Your task to perform on an android device: Is it going to rain today? Image 0: 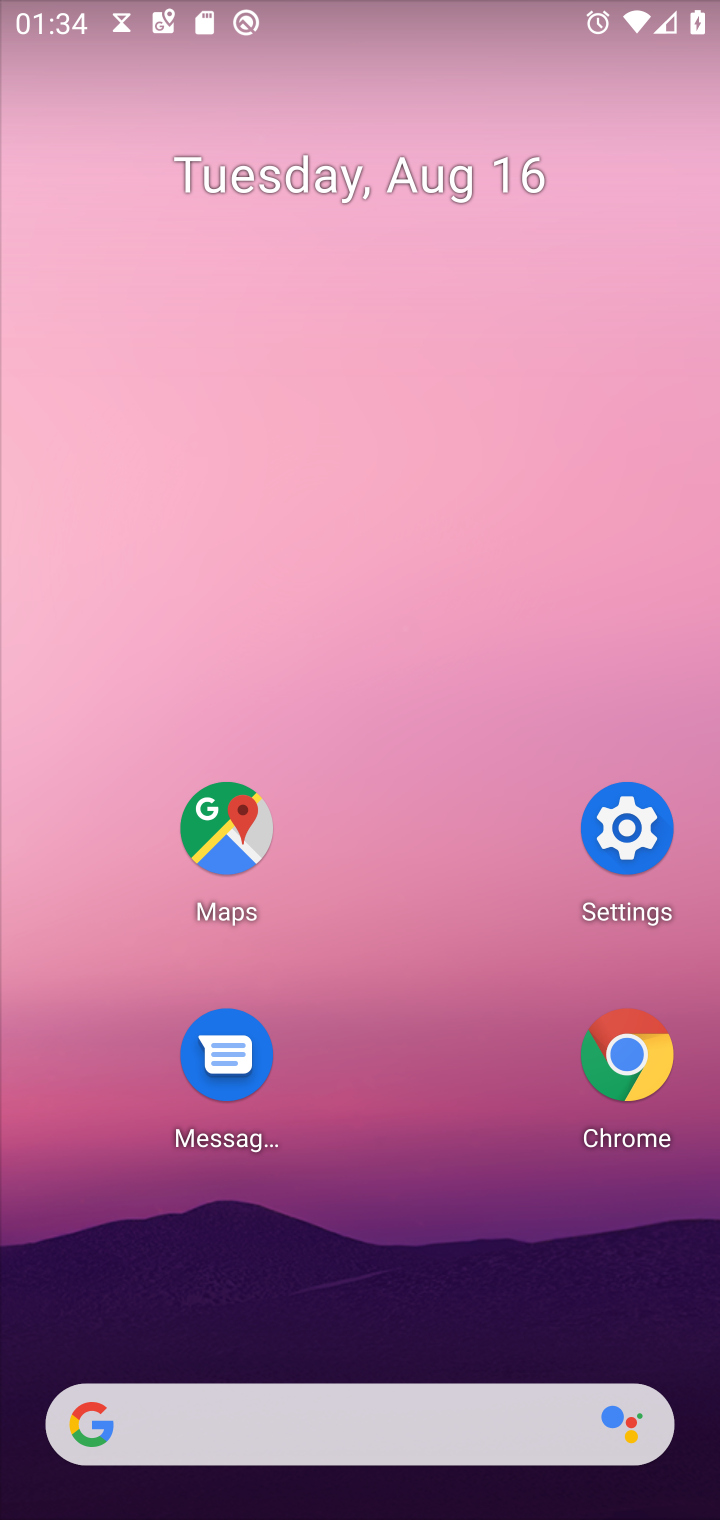
Step 0: click (283, 1444)
Your task to perform on an android device: Is it going to rain today? Image 1: 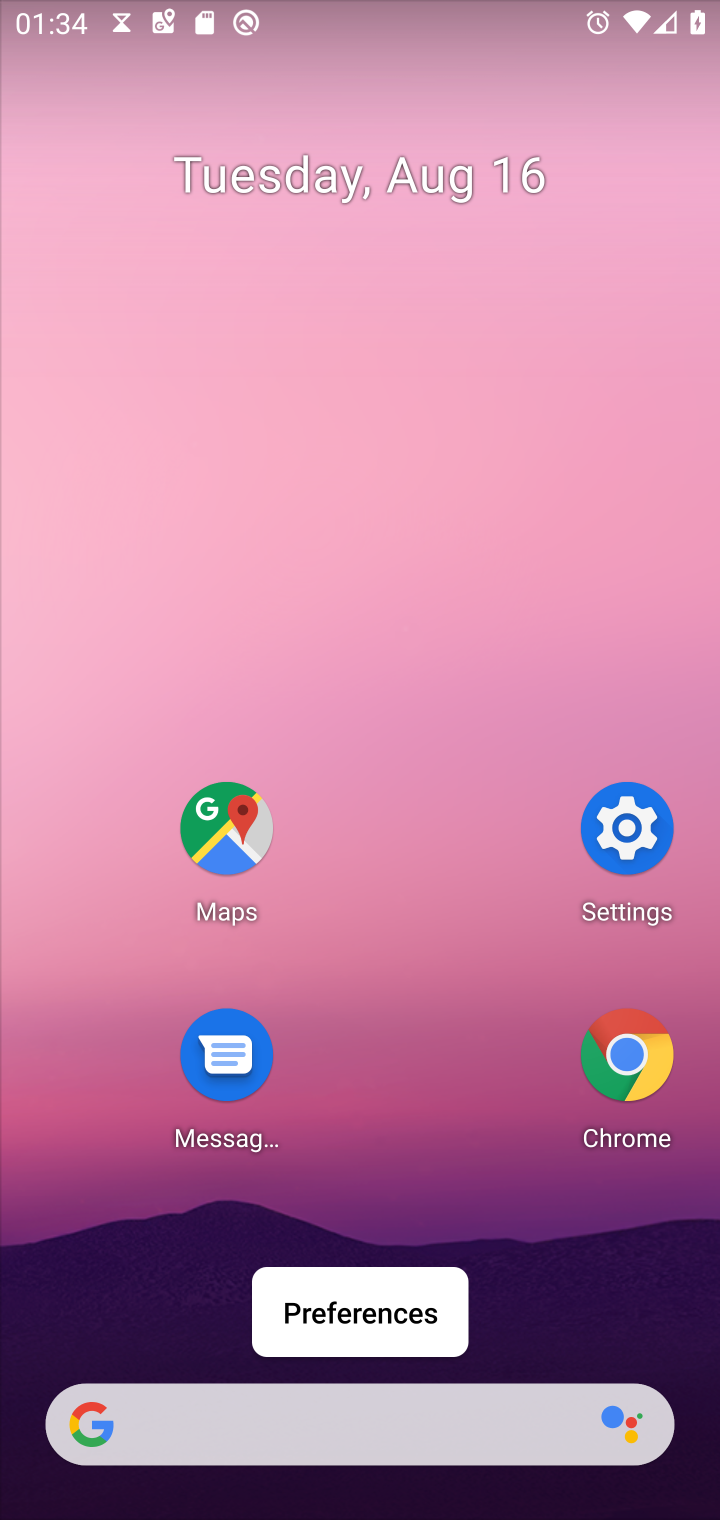
Step 1: click (275, 1413)
Your task to perform on an android device: Is it going to rain today? Image 2: 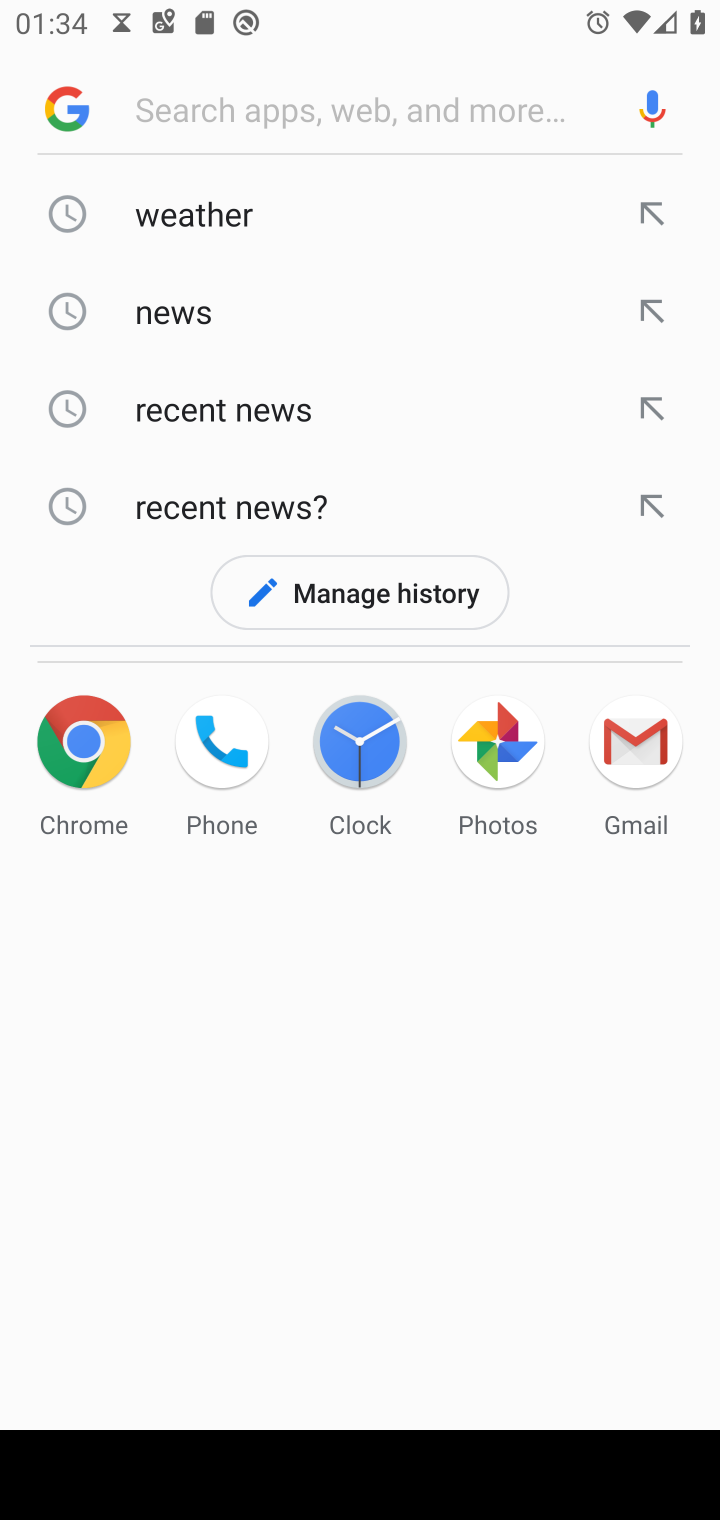
Step 2: click (174, 207)
Your task to perform on an android device: Is it going to rain today? Image 3: 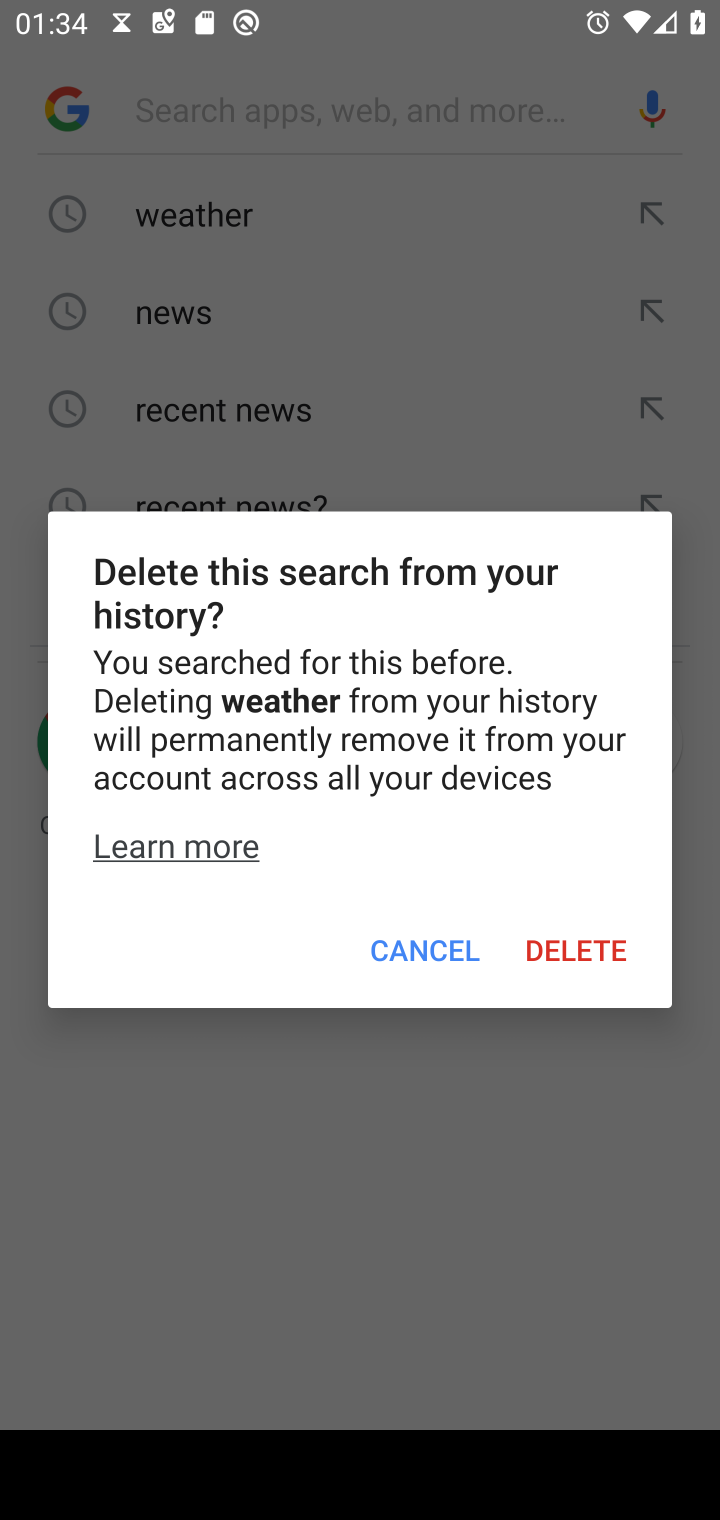
Step 3: click (411, 962)
Your task to perform on an android device: Is it going to rain today? Image 4: 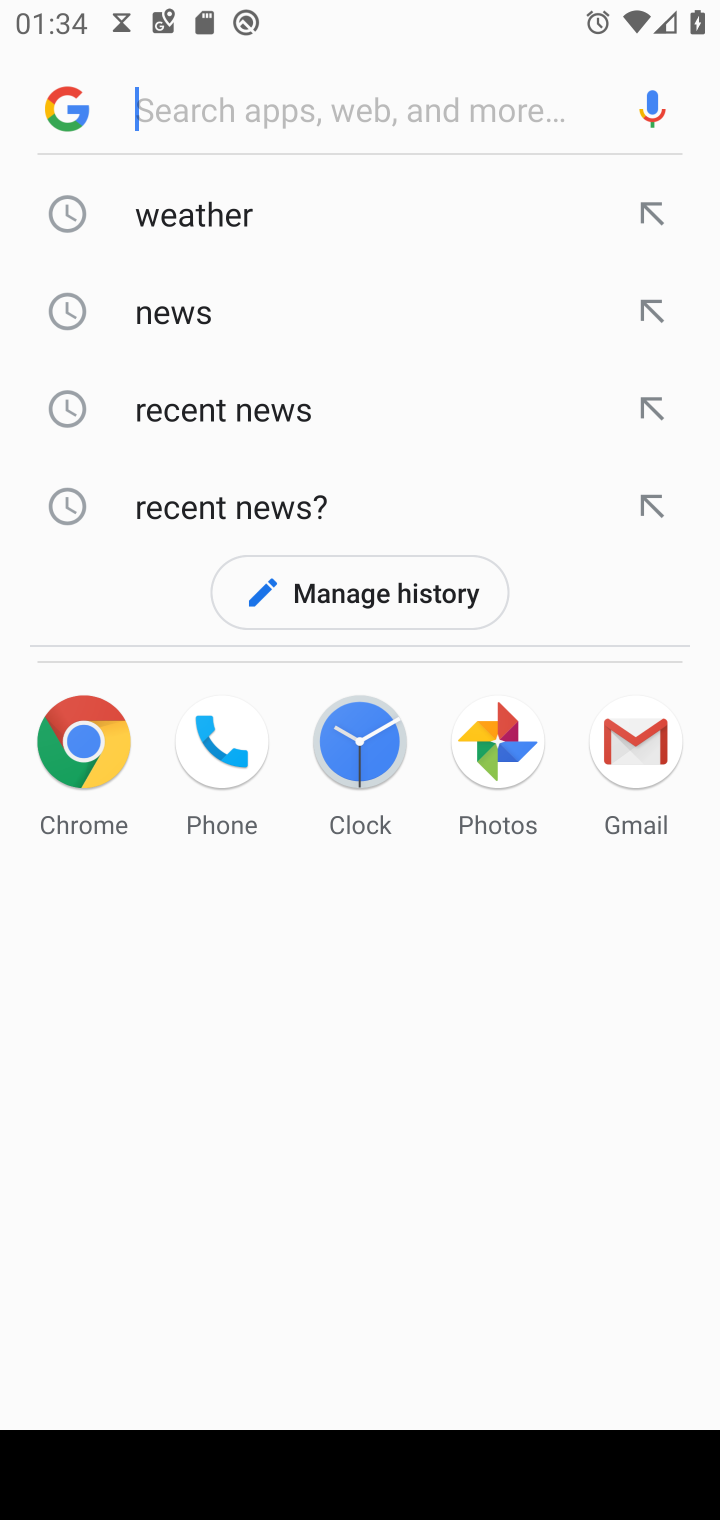
Step 4: click (260, 193)
Your task to perform on an android device: Is it going to rain today? Image 5: 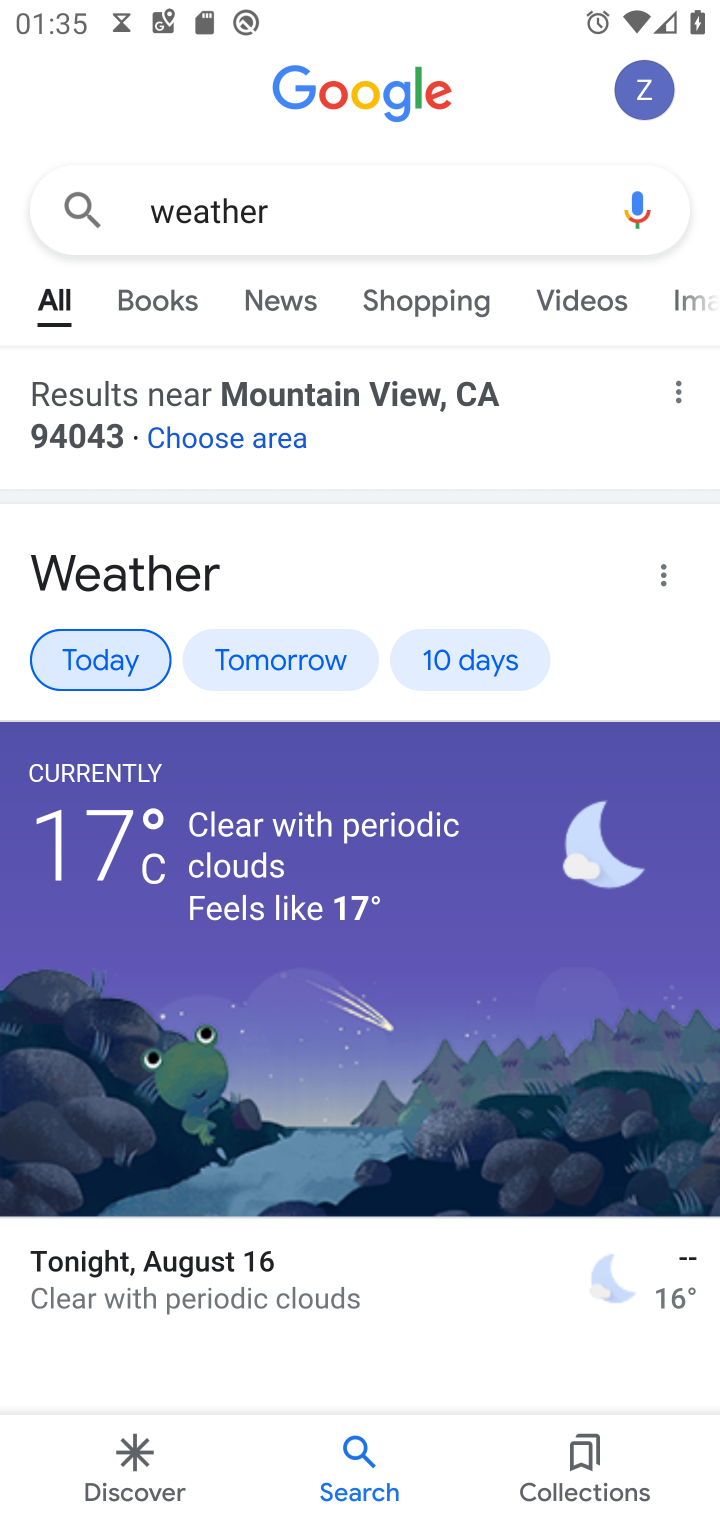
Step 5: task complete